Your task to perform on an android device: Open my contact list Image 0: 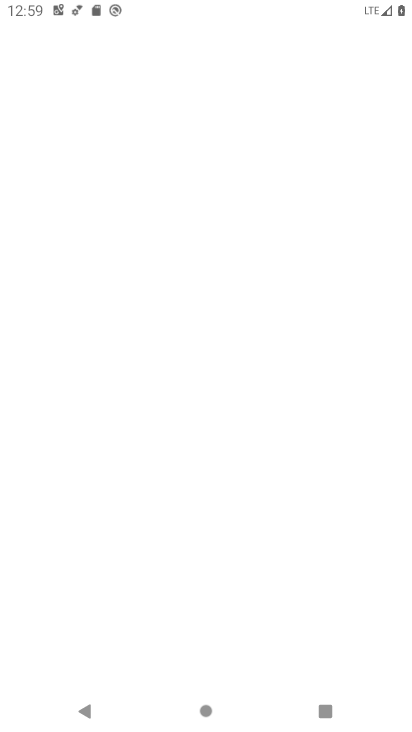
Step 0: drag from (200, 618) to (231, 378)
Your task to perform on an android device: Open my contact list Image 1: 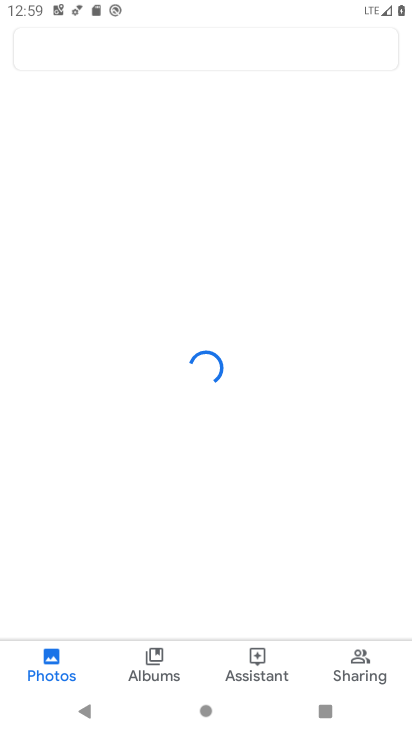
Step 1: press home button
Your task to perform on an android device: Open my contact list Image 2: 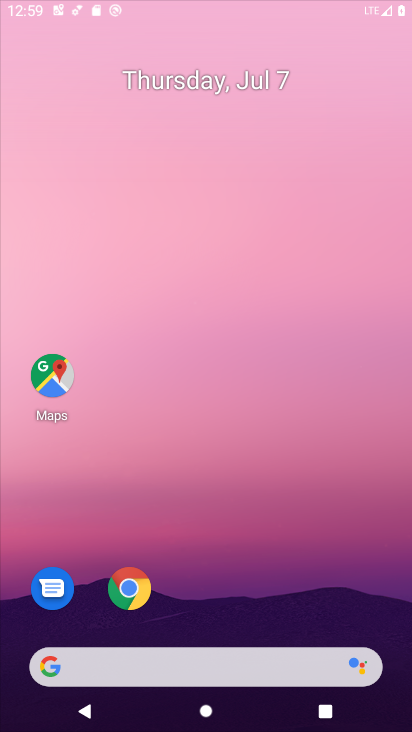
Step 2: drag from (194, 602) to (337, 19)
Your task to perform on an android device: Open my contact list Image 3: 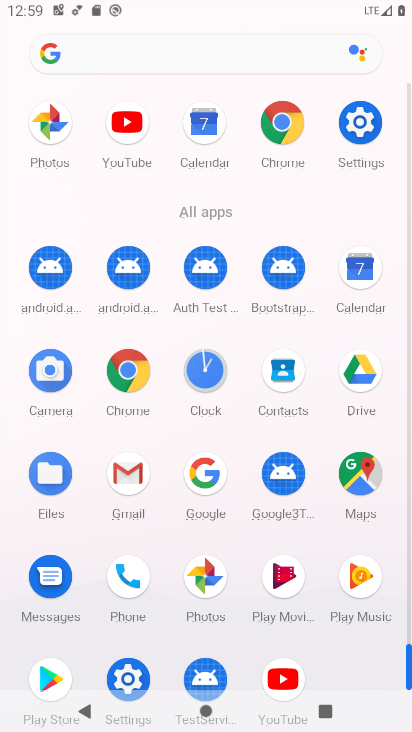
Step 3: click (280, 367)
Your task to perform on an android device: Open my contact list Image 4: 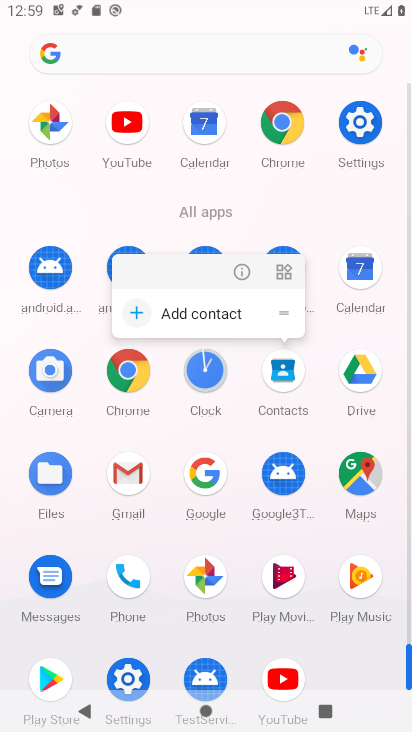
Step 4: click (243, 268)
Your task to perform on an android device: Open my contact list Image 5: 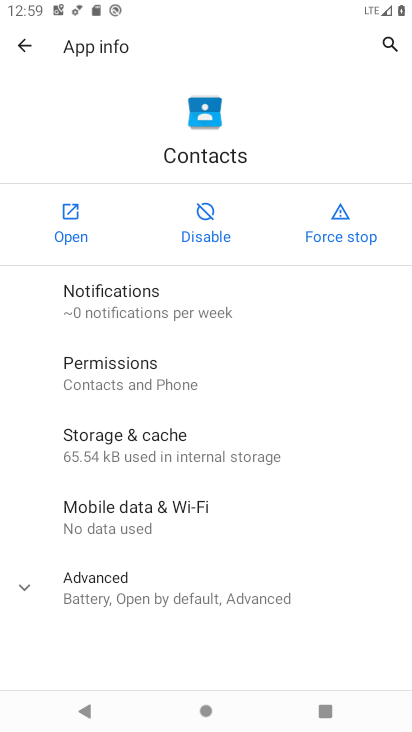
Step 5: click (67, 229)
Your task to perform on an android device: Open my contact list Image 6: 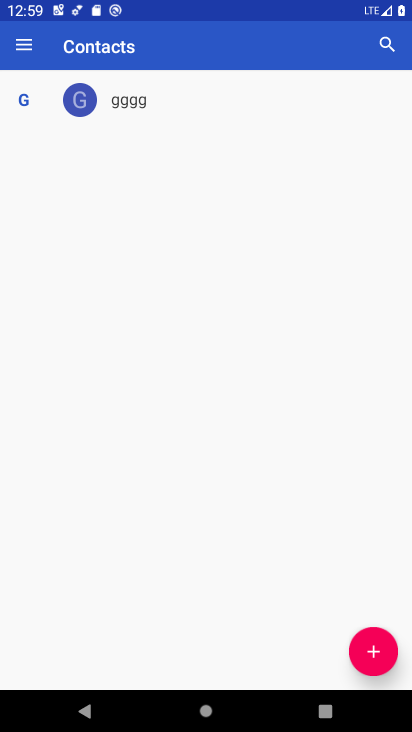
Step 6: press home button
Your task to perform on an android device: Open my contact list Image 7: 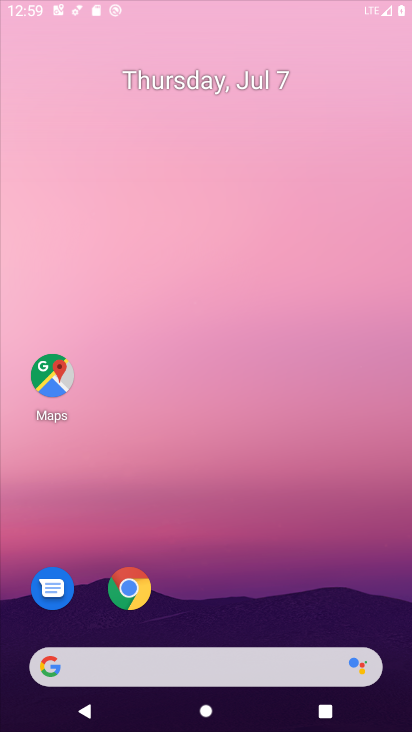
Step 7: drag from (191, 551) to (370, 78)
Your task to perform on an android device: Open my contact list Image 8: 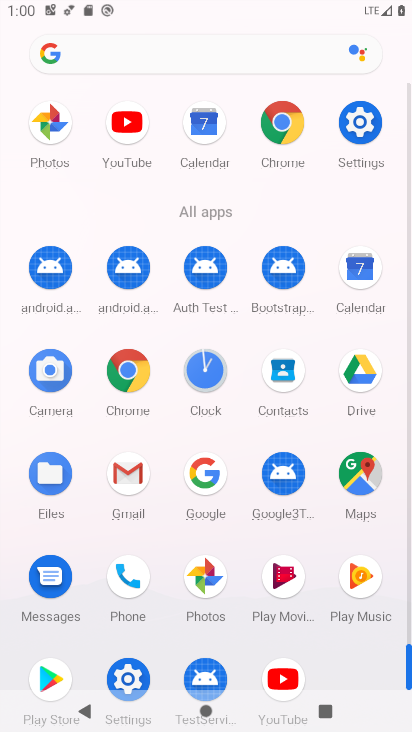
Step 8: click (294, 369)
Your task to perform on an android device: Open my contact list Image 9: 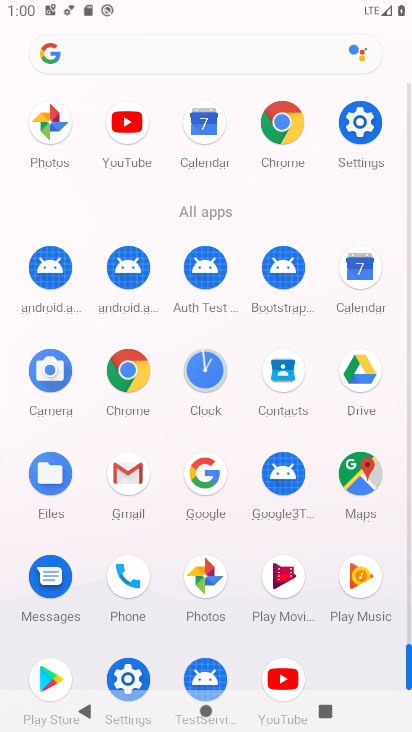
Step 9: click (294, 369)
Your task to perform on an android device: Open my contact list Image 10: 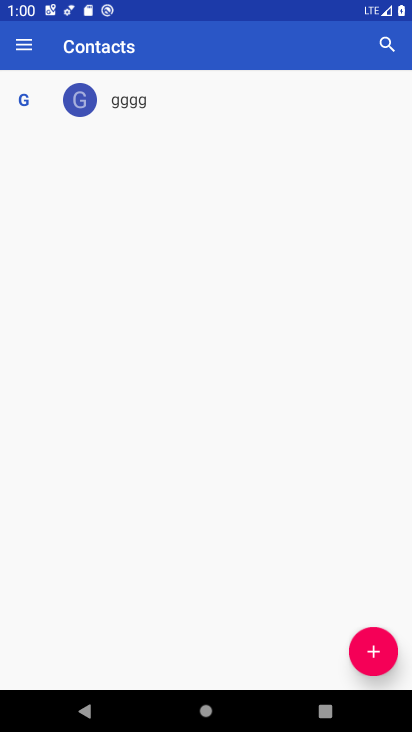
Step 10: task complete